Your task to perform on an android device: toggle sleep mode Image 0: 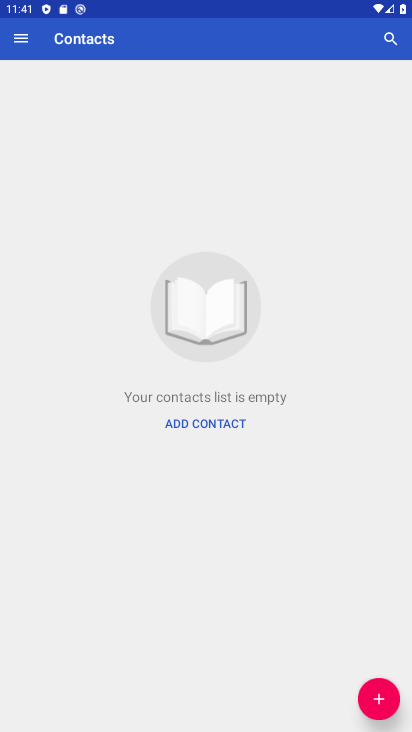
Step 0: press home button
Your task to perform on an android device: toggle sleep mode Image 1: 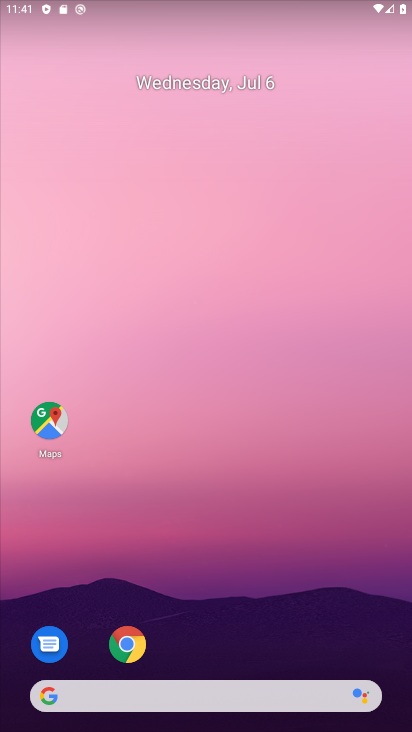
Step 1: drag from (232, 691) to (205, 141)
Your task to perform on an android device: toggle sleep mode Image 2: 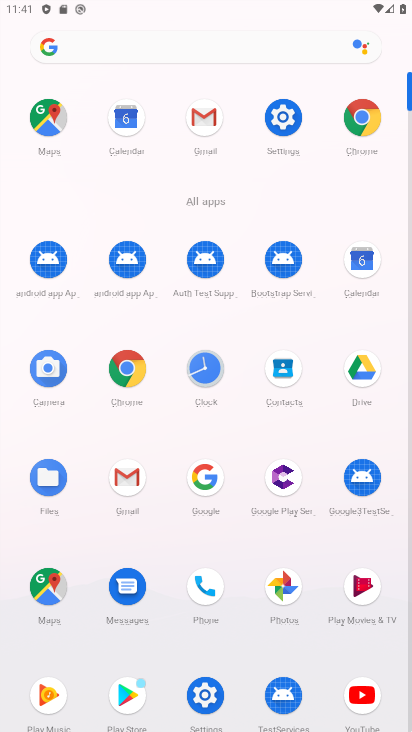
Step 2: click (281, 128)
Your task to perform on an android device: toggle sleep mode Image 3: 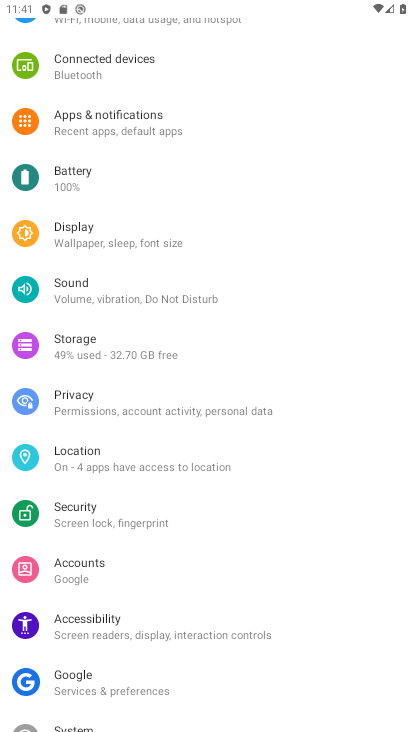
Step 3: click (94, 243)
Your task to perform on an android device: toggle sleep mode Image 4: 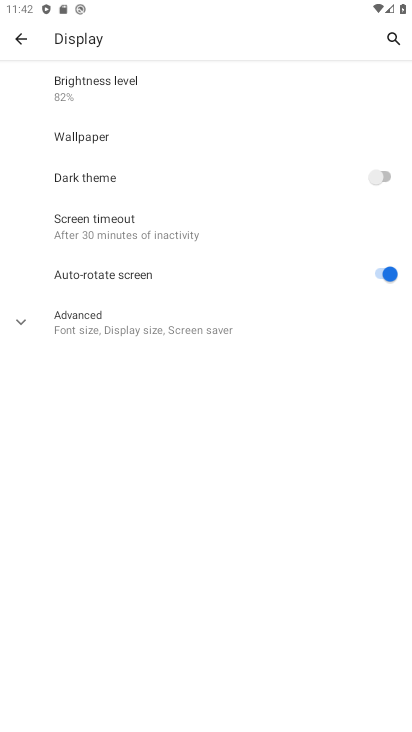
Step 4: click (93, 329)
Your task to perform on an android device: toggle sleep mode Image 5: 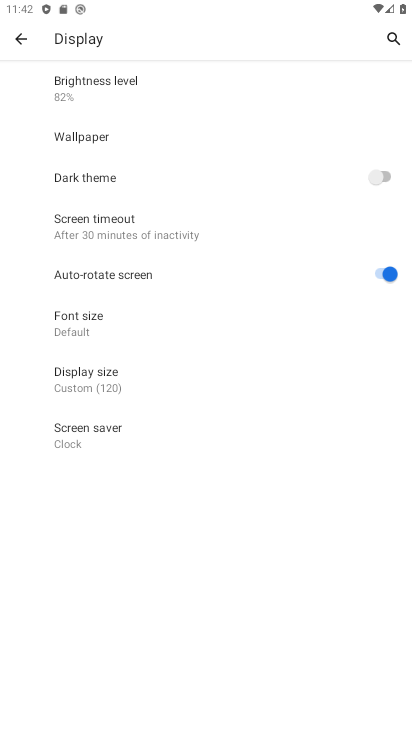
Step 5: task complete